Your task to perform on an android device: toggle improve location accuracy Image 0: 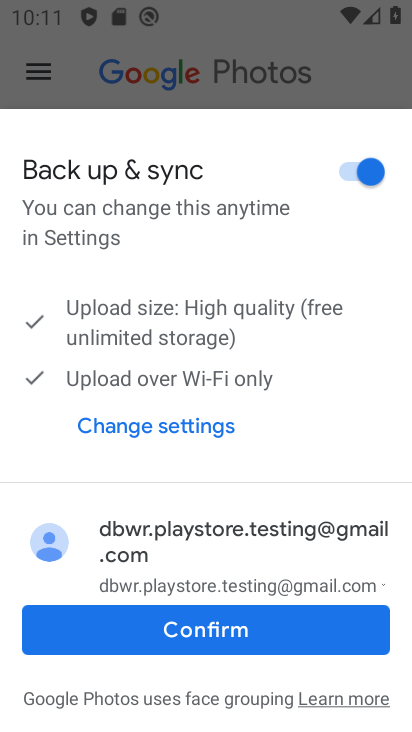
Step 0: task complete